Your task to perform on an android device: Play the last video I watched on Youtube Image 0: 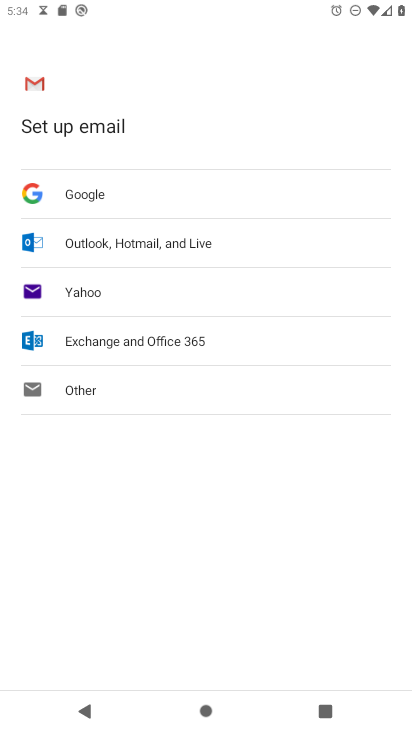
Step 0: press back button
Your task to perform on an android device: Play the last video I watched on Youtube Image 1: 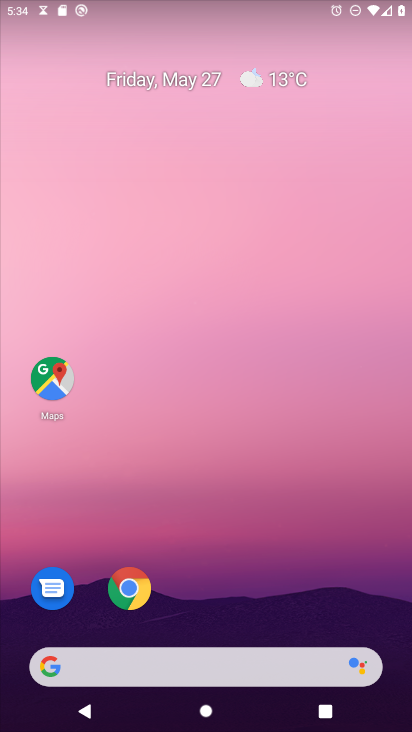
Step 1: drag from (184, 626) to (259, 69)
Your task to perform on an android device: Play the last video I watched on Youtube Image 2: 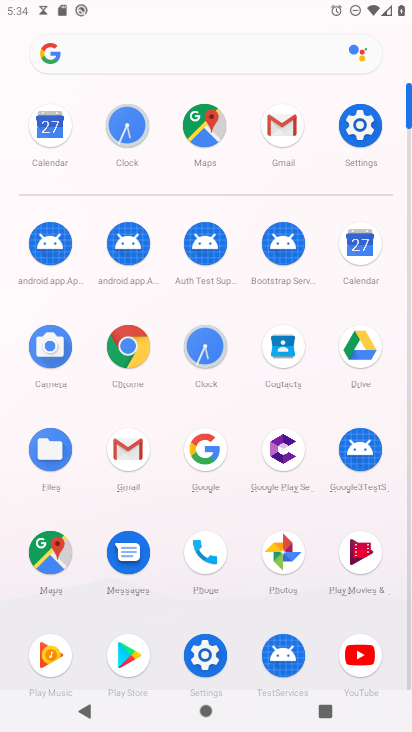
Step 2: click (348, 653)
Your task to perform on an android device: Play the last video I watched on Youtube Image 3: 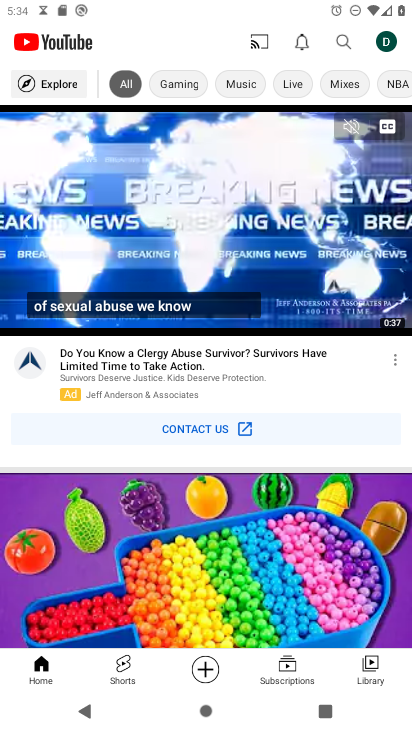
Step 3: click (363, 674)
Your task to perform on an android device: Play the last video I watched on Youtube Image 4: 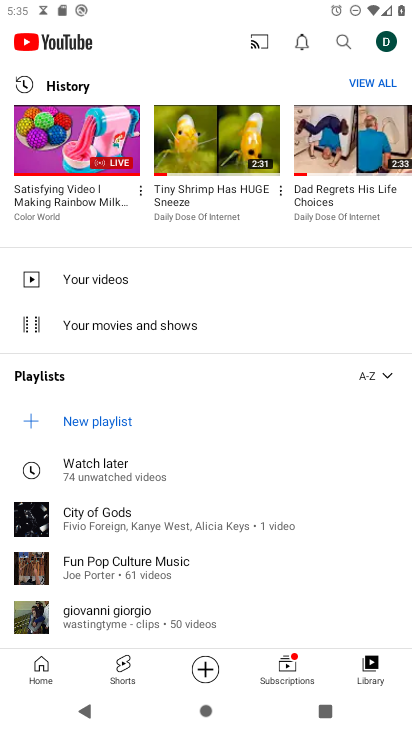
Step 4: click (74, 150)
Your task to perform on an android device: Play the last video I watched on Youtube Image 5: 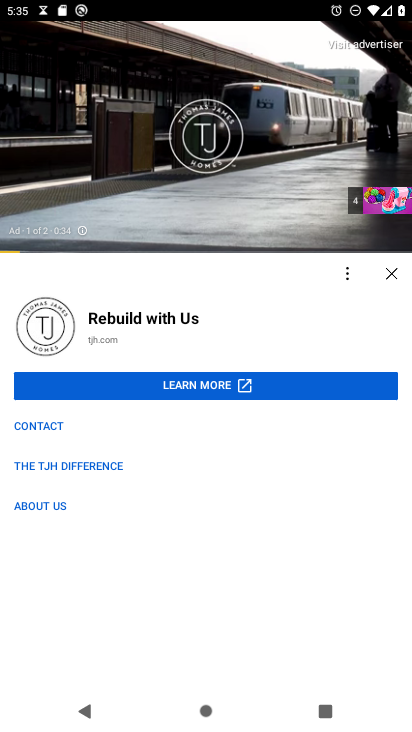
Step 5: click (204, 136)
Your task to perform on an android device: Play the last video I watched on Youtube Image 6: 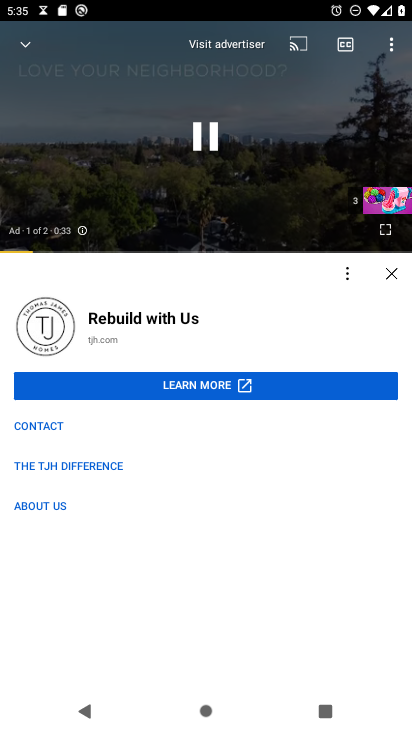
Step 6: click (204, 136)
Your task to perform on an android device: Play the last video I watched on Youtube Image 7: 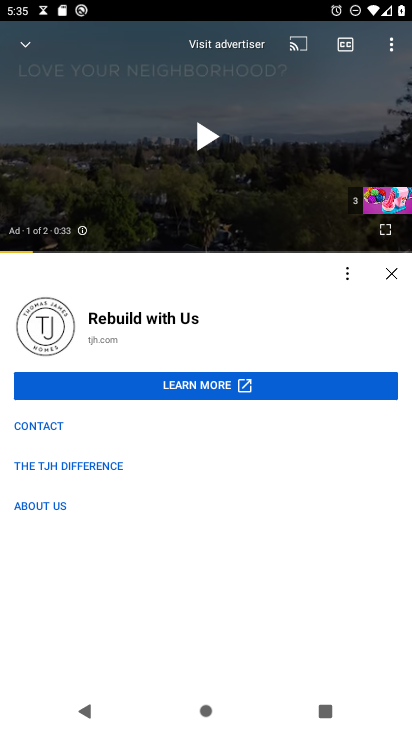
Step 7: task complete